Your task to perform on an android device: check the backup settings in the google photos Image 0: 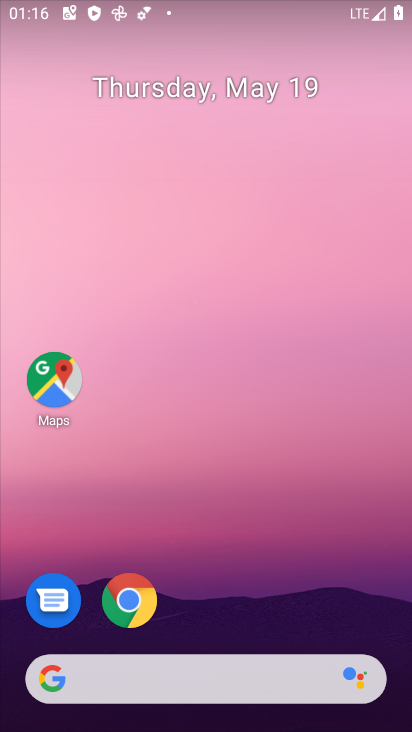
Step 0: drag from (248, 518) to (174, 115)
Your task to perform on an android device: check the backup settings in the google photos Image 1: 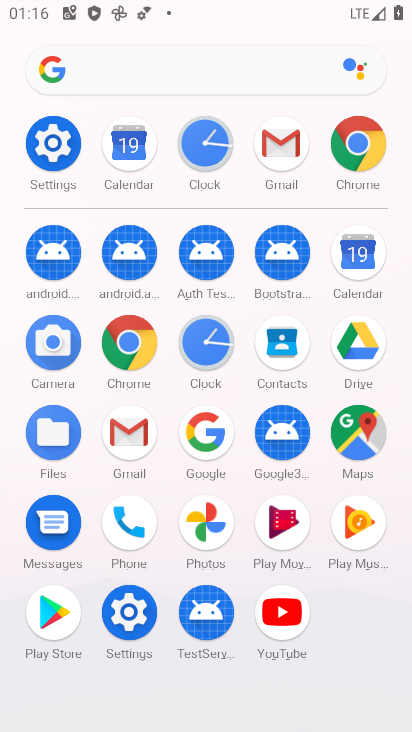
Step 1: click (202, 517)
Your task to perform on an android device: check the backup settings in the google photos Image 2: 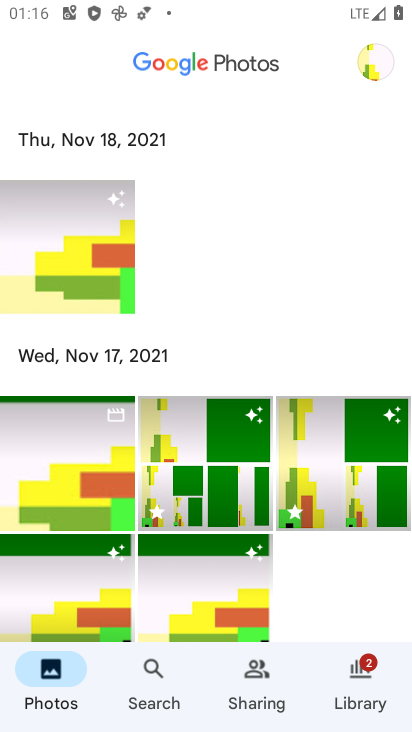
Step 2: click (368, 56)
Your task to perform on an android device: check the backup settings in the google photos Image 3: 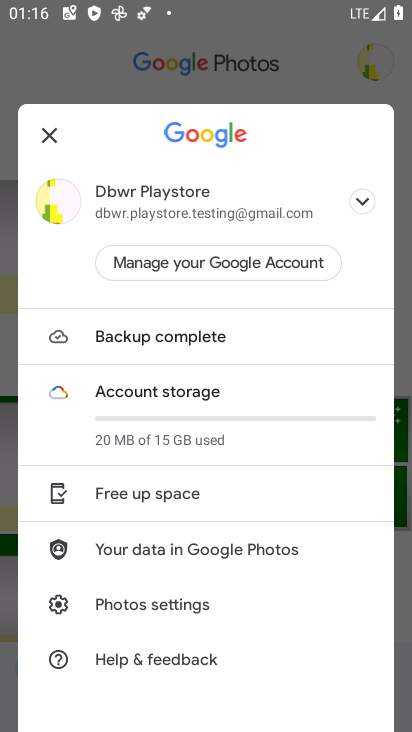
Step 3: click (195, 598)
Your task to perform on an android device: check the backup settings in the google photos Image 4: 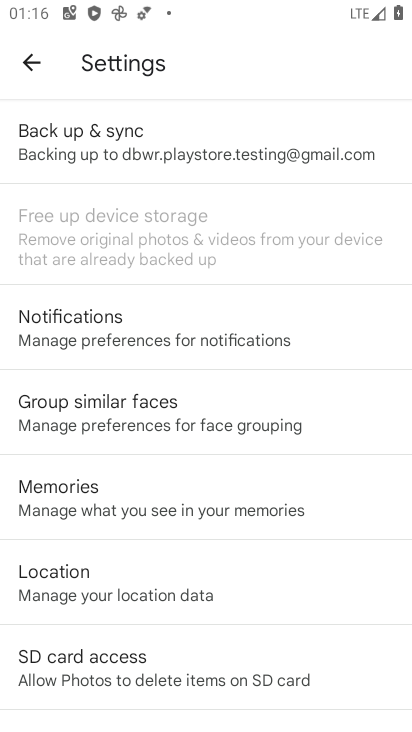
Step 4: task complete